Your task to perform on an android device: toggle show notifications on the lock screen Image 0: 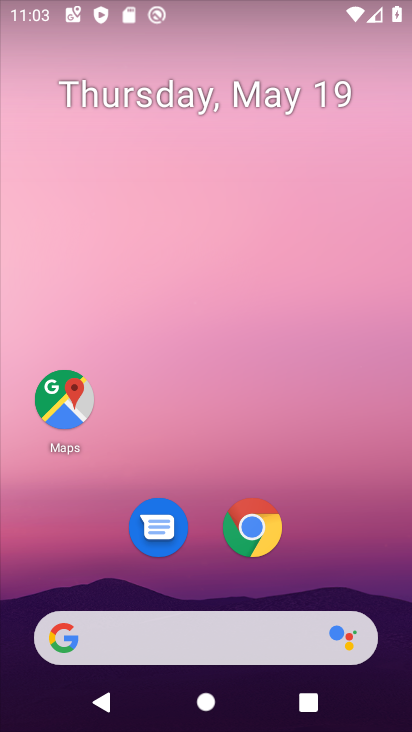
Step 0: drag from (200, 573) to (252, 71)
Your task to perform on an android device: toggle show notifications on the lock screen Image 1: 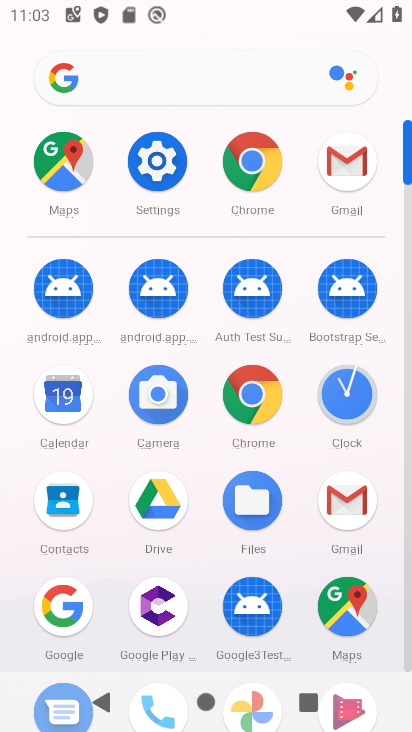
Step 1: click (166, 181)
Your task to perform on an android device: toggle show notifications on the lock screen Image 2: 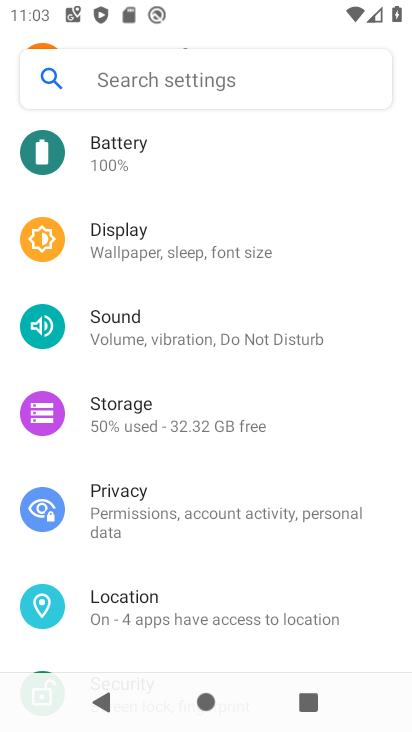
Step 2: drag from (180, 219) to (161, 654)
Your task to perform on an android device: toggle show notifications on the lock screen Image 3: 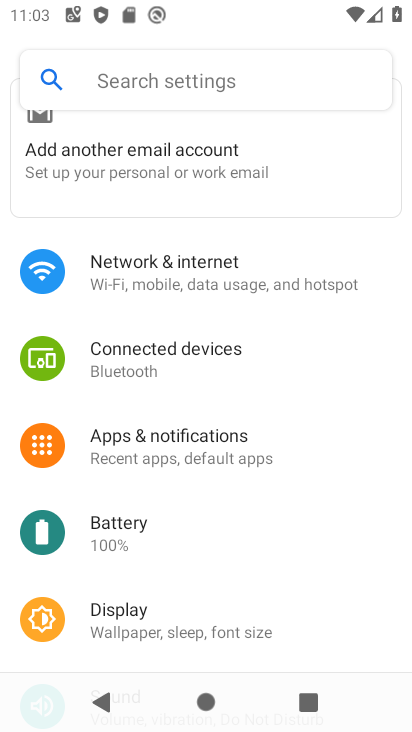
Step 3: click (207, 444)
Your task to perform on an android device: toggle show notifications on the lock screen Image 4: 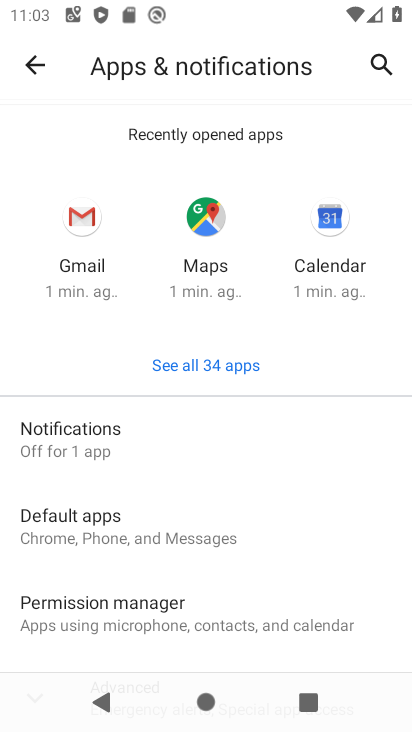
Step 4: click (96, 440)
Your task to perform on an android device: toggle show notifications on the lock screen Image 5: 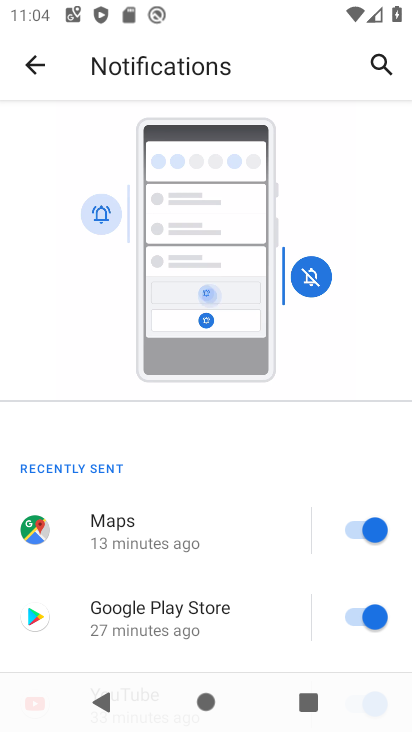
Step 5: drag from (229, 579) to (269, 244)
Your task to perform on an android device: toggle show notifications on the lock screen Image 6: 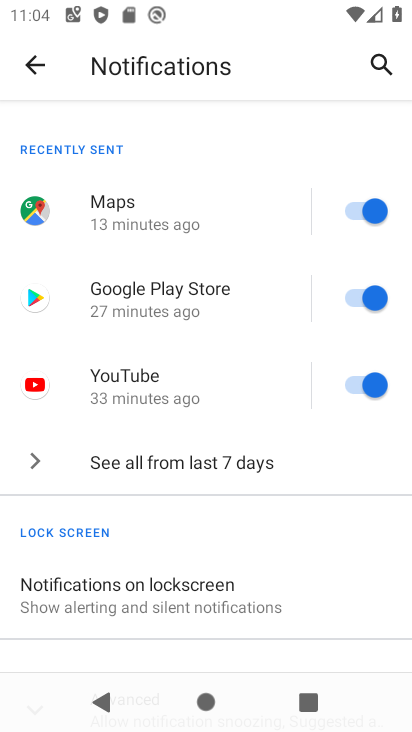
Step 6: drag from (193, 591) to (244, 276)
Your task to perform on an android device: toggle show notifications on the lock screen Image 7: 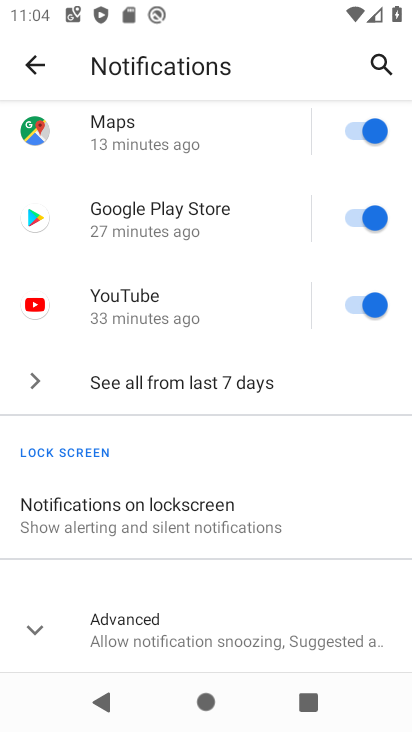
Step 7: click (143, 508)
Your task to perform on an android device: toggle show notifications on the lock screen Image 8: 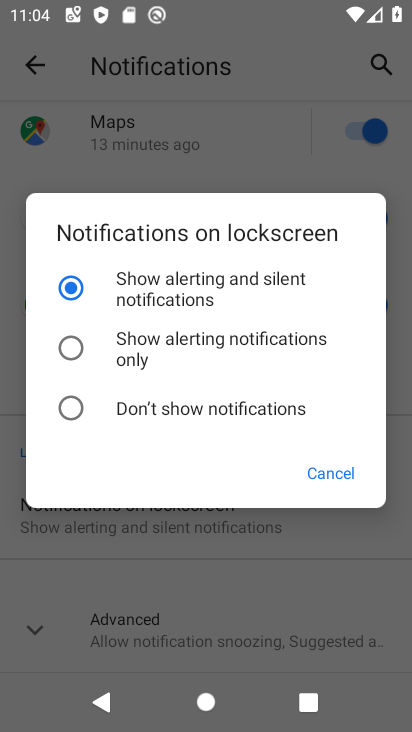
Step 8: click (149, 411)
Your task to perform on an android device: toggle show notifications on the lock screen Image 9: 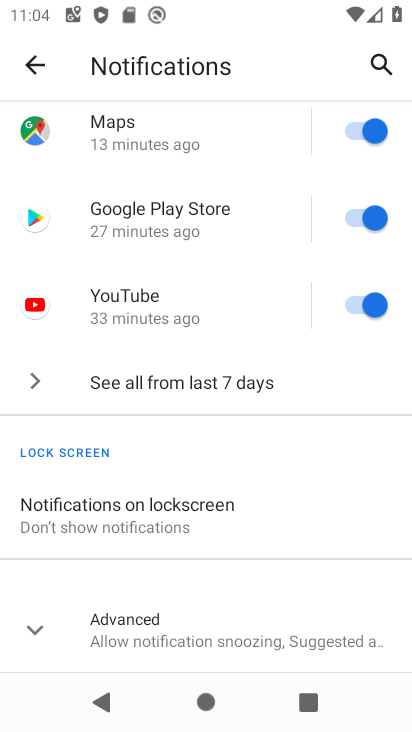
Step 9: task complete